Your task to perform on an android device: Search for seafood restaurants on Google Maps Image 0: 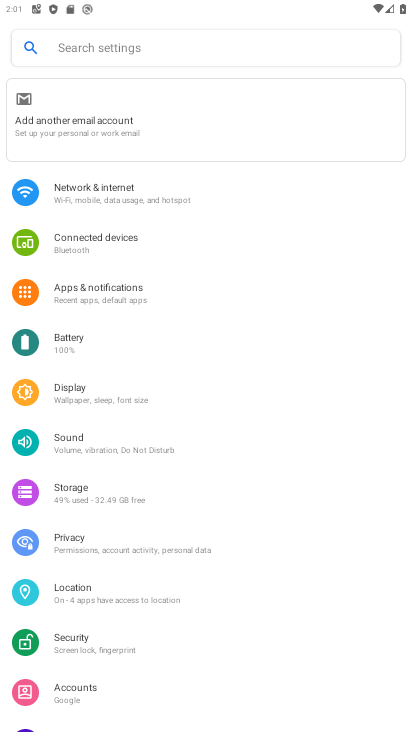
Step 0: press back button
Your task to perform on an android device: Search for seafood restaurants on Google Maps Image 1: 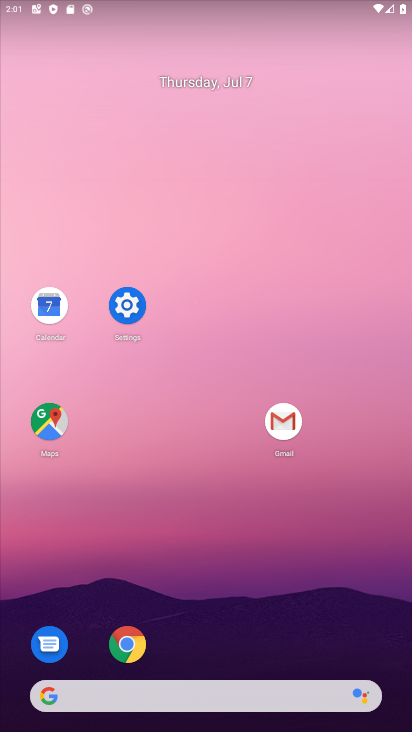
Step 1: click (41, 436)
Your task to perform on an android device: Search for seafood restaurants on Google Maps Image 2: 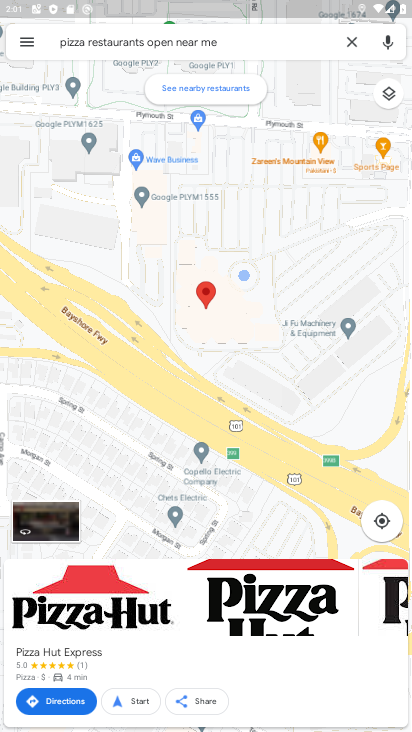
Step 2: click (347, 45)
Your task to perform on an android device: Search for seafood restaurants on Google Maps Image 3: 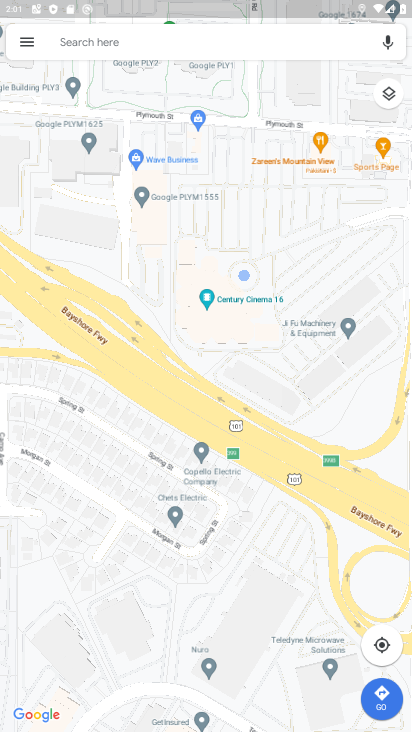
Step 3: click (126, 48)
Your task to perform on an android device: Search for seafood restaurants on Google Maps Image 4: 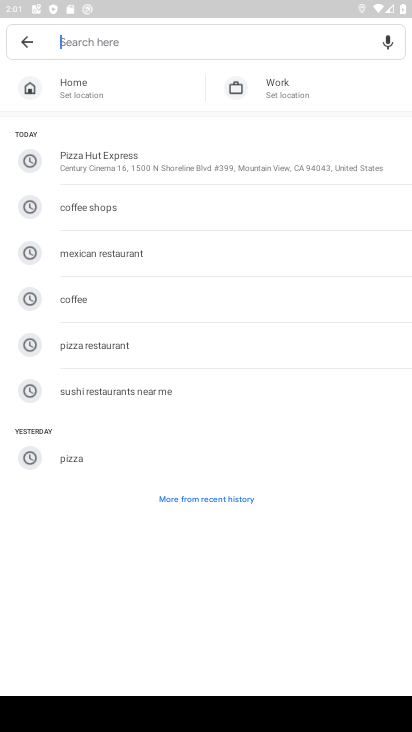
Step 4: type "seafood restaurants"
Your task to perform on an android device: Search for seafood restaurants on Google Maps Image 5: 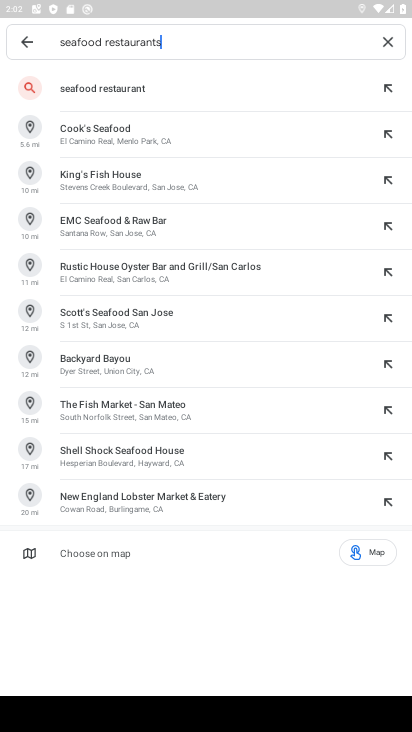
Step 5: click (135, 85)
Your task to perform on an android device: Search for seafood restaurants on Google Maps Image 6: 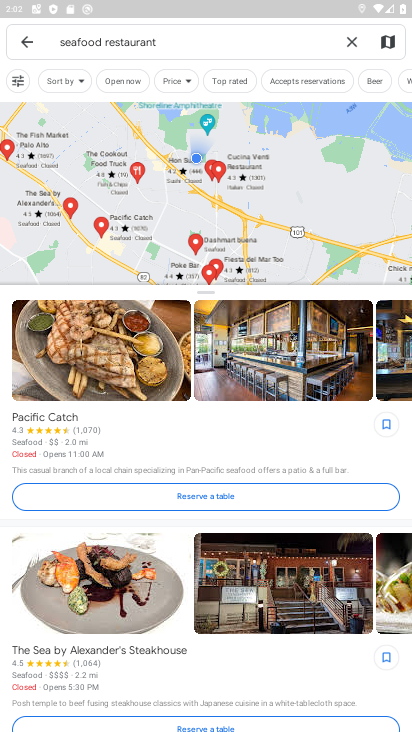
Step 6: task complete